Your task to perform on an android device: What's on my calendar today? Image 0: 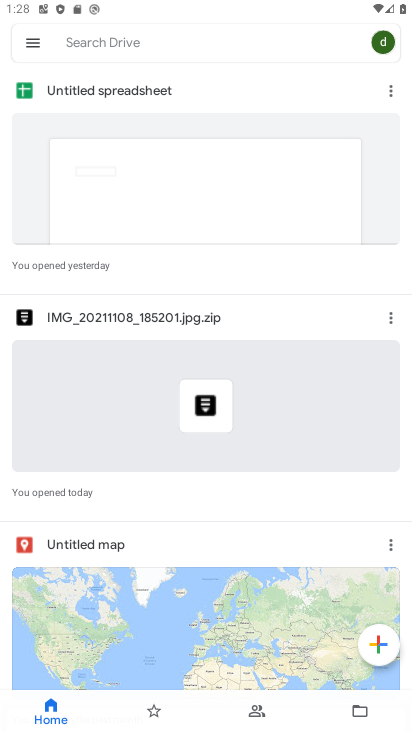
Step 0: press home button
Your task to perform on an android device: What's on my calendar today? Image 1: 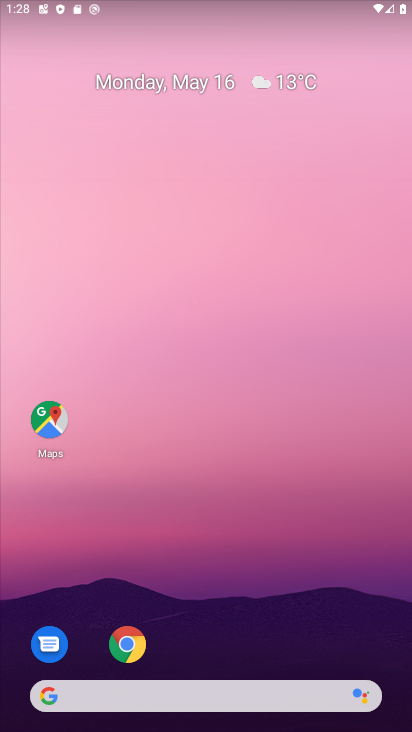
Step 1: drag from (243, 618) to (300, 174)
Your task to perform on an android device: What's on my calendar today? Image 2: 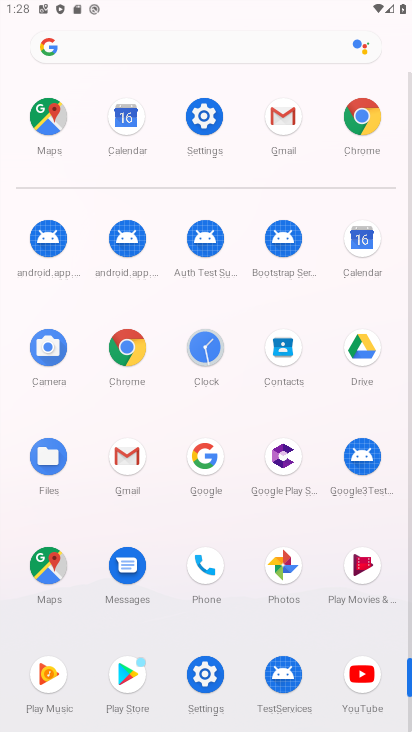
Step 2: click (132, 361)
Your task to perform on an android device: What's on my calendar today? Image 3: 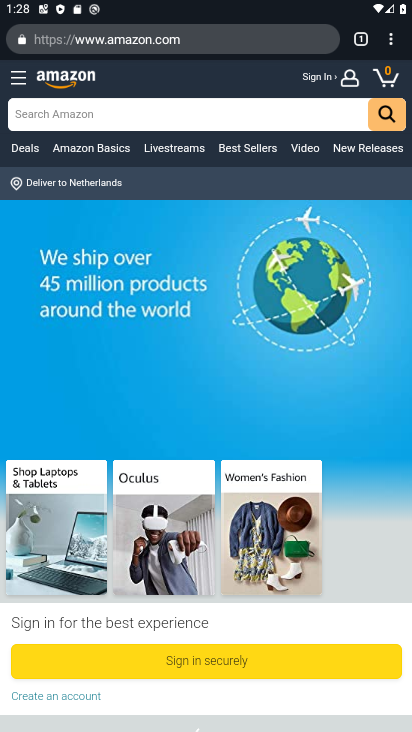
Step 3: press home button
Your task to perform on an android device: What's on my calendar today? Image 4: 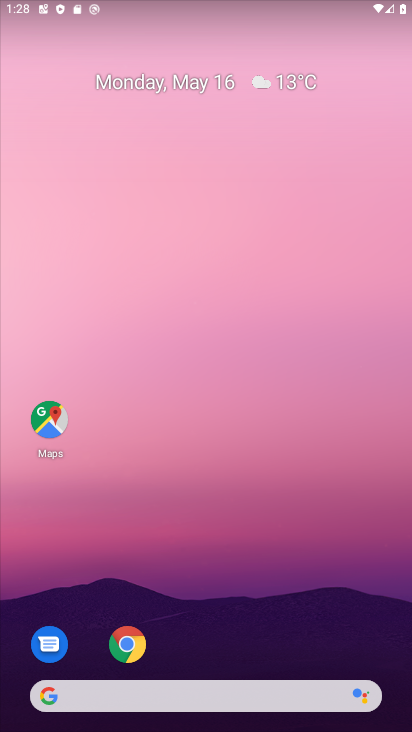
Step 4: drag from (220, 607) to (252, 90)
Your task to perform on an android device: What's on my calendar today? Image 5: 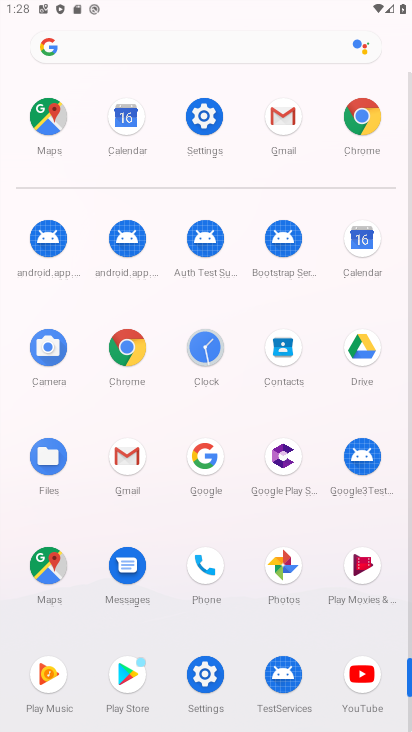
Step 5: click (362, 272)
Your task to perform on an android device: What's on my calendar today? Image 6: 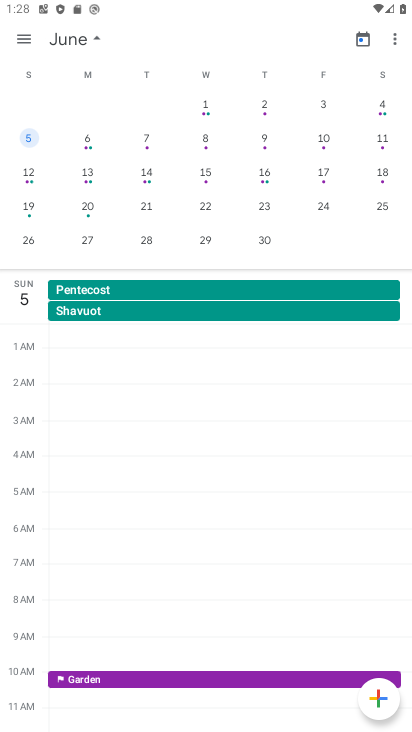
Step 6: drag from (55, 201) to (373, 211)
Your task to perform on an android device: What's on my calendar today? Image 7: 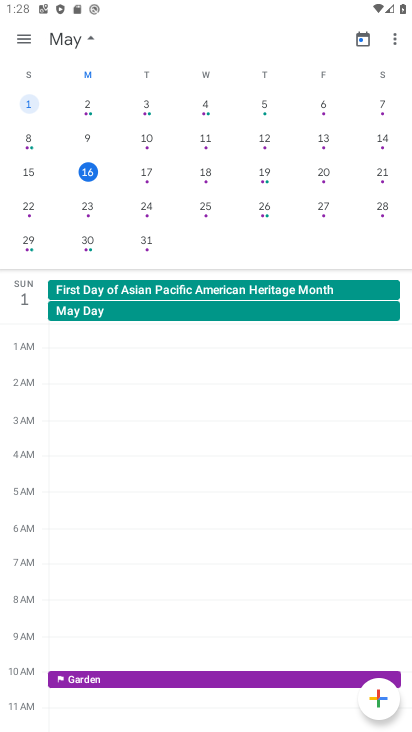
Step 7: click (87, 171)
Your task to perform on an android device: What's on my calendar today? Image 8: 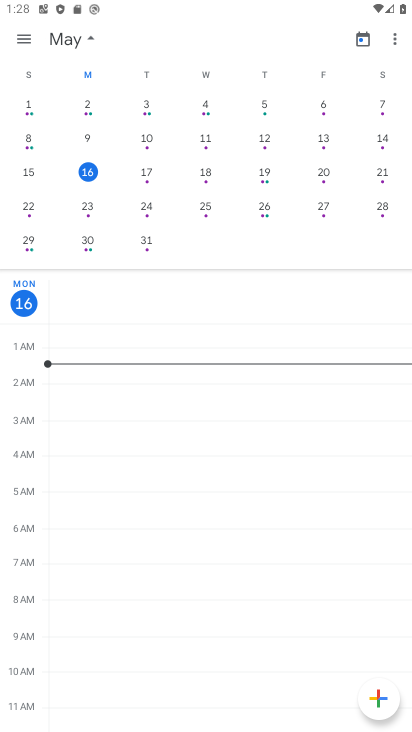
Step 8: click (33, 40)
Your task to perform on an android device: What's on my calendar today? Image 9: 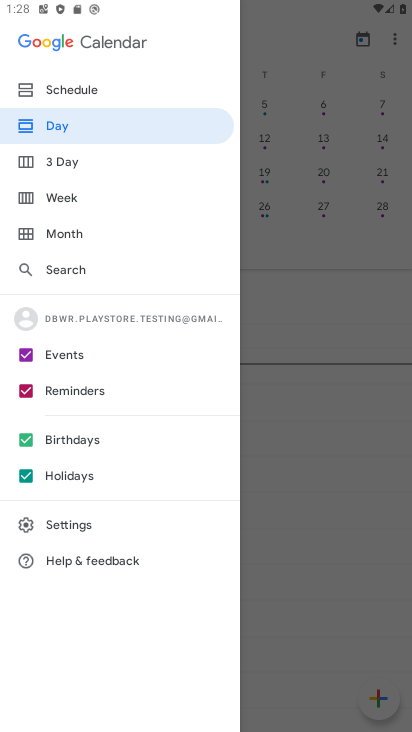
Step 9: click (88, 122)
Your task to perform on an android device: What's on my calendar today? Image 10: 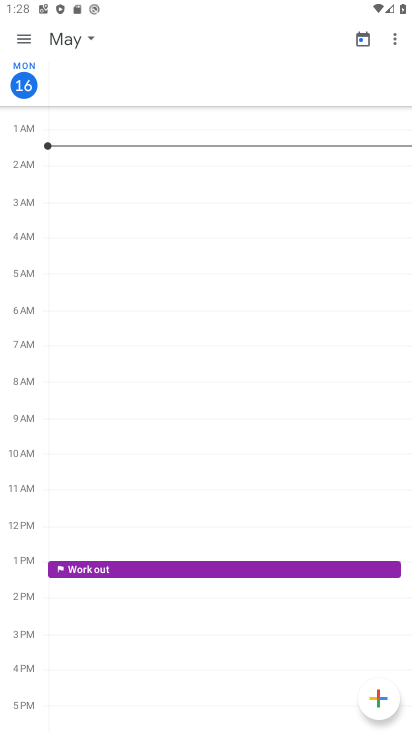
Step 10: task complete